Your task to perform on an android device: turn off airplane mode Image 0: 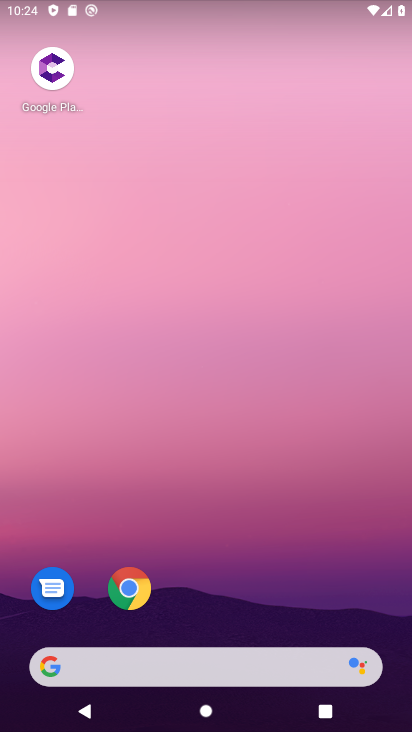
Step 0: drag from (248, 634) to (321, 179)
Your task to perform on an android device: turn off airplane mode Image 1: 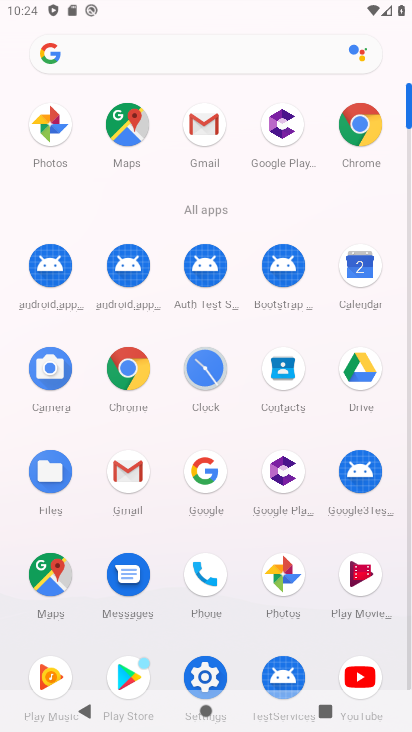
Step 1: drag from (186, 616) to (200, 444)
Your task to perform on an android device: turn off airplane mode Image 2: 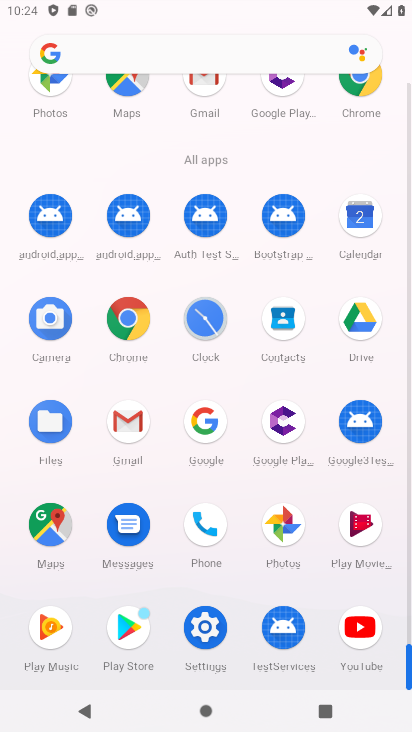
Step 2: click (212, 635)
Your task to perform on an android device: turn off airplane mode Image 3: 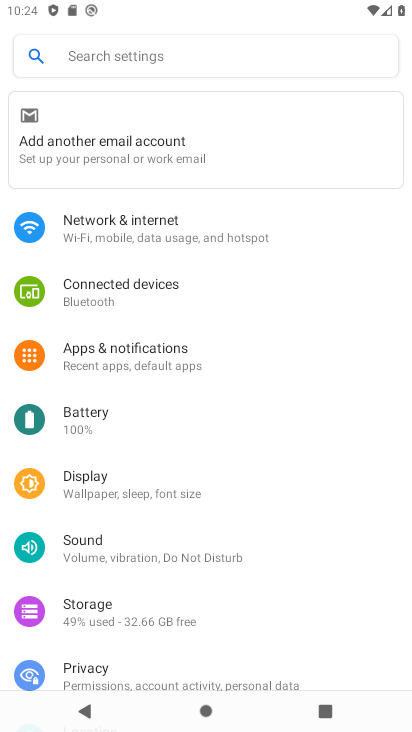
Step 3: click (165, 212)
Your task to perform on an android device: turn off airplane mode Image 4: 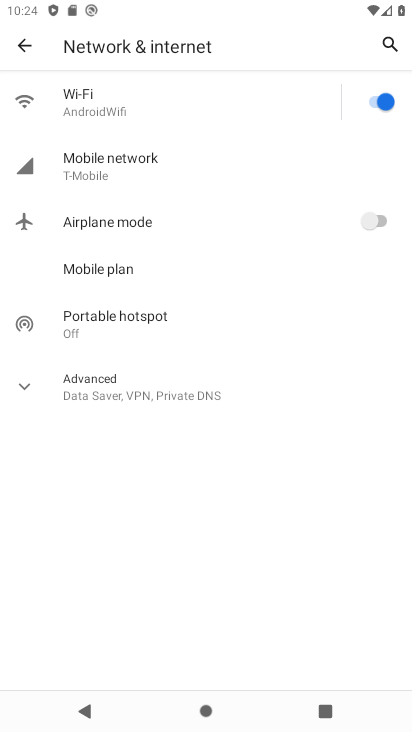
Step 4: task complete